Your task to perform on an android device: open app "Pluto TV - Live TV and Movies" Image 0: 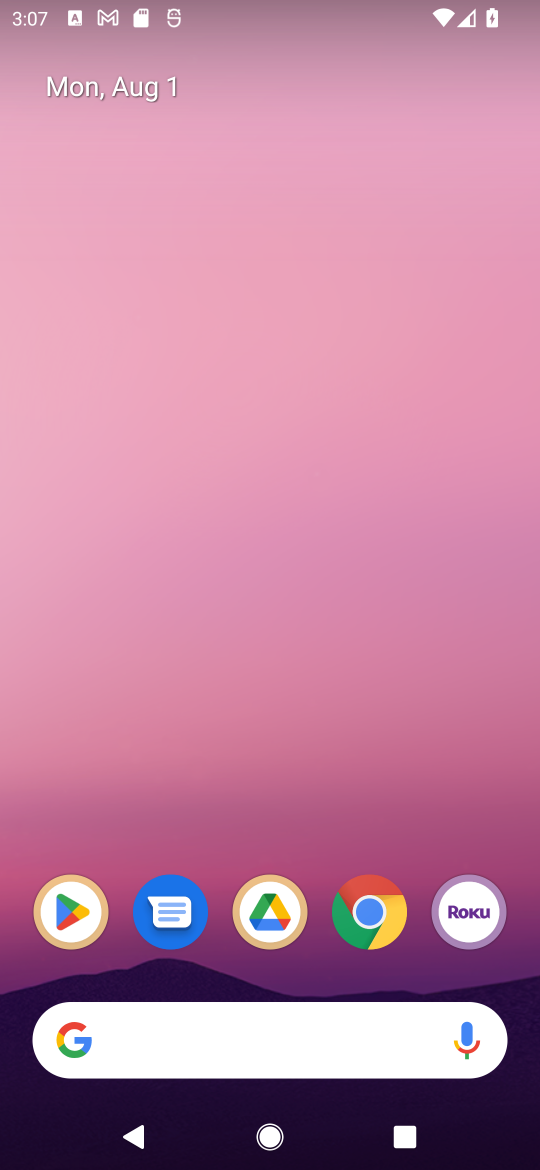
Step 0: click (82, 910)
Your task to perform on an android device: open app "Pluto TV - Live TV and Movies" Image 1: 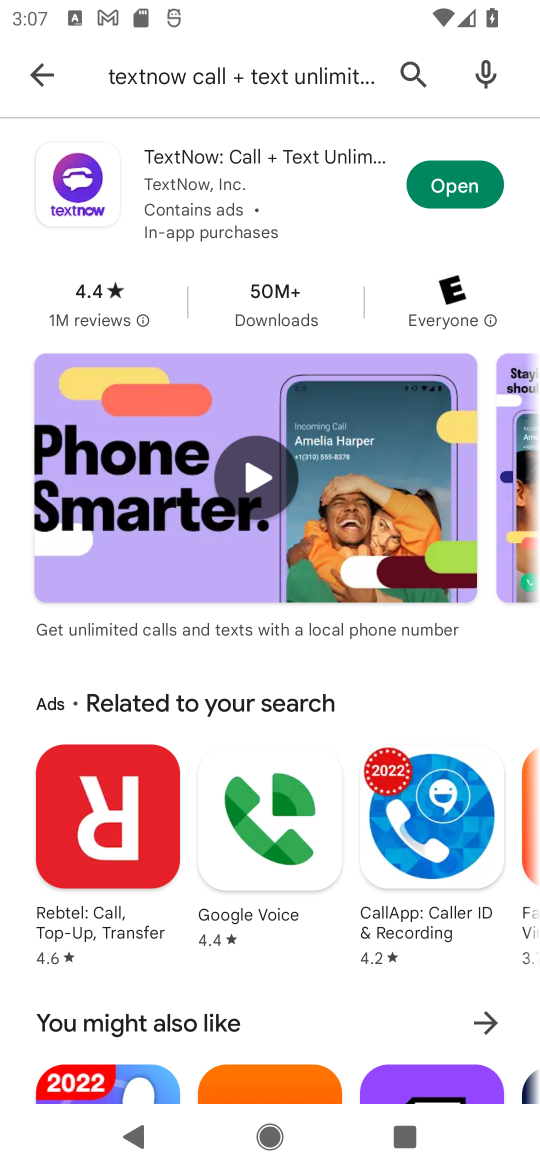
Step 1: click (414, 70)
Your task to perform on an android device: open app "Pluto TV - Live TV and Movies" Image 2: 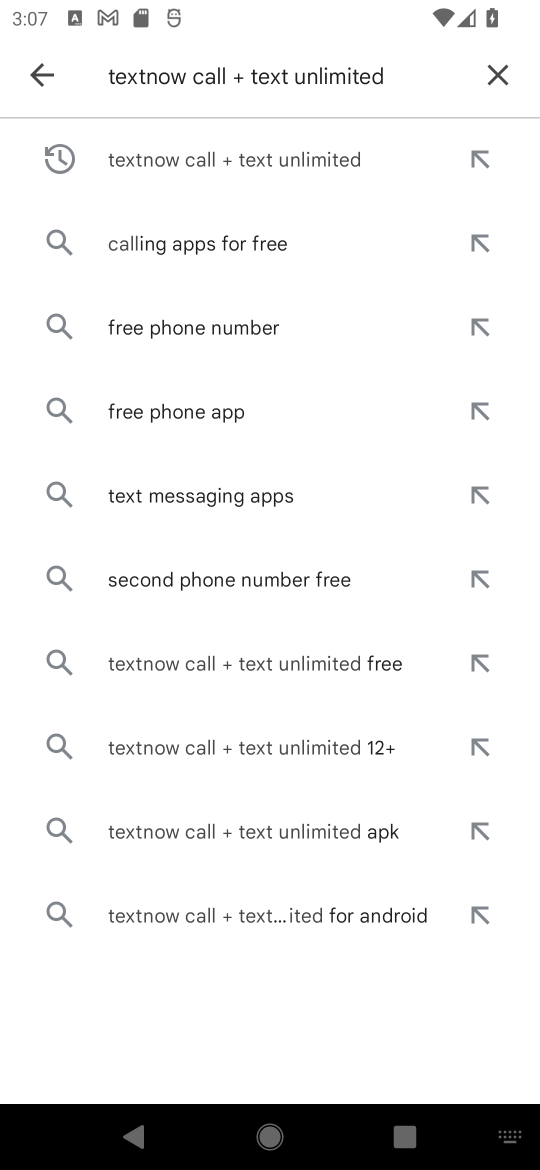
Step 2: click (512, 90)
Your task to perform on an android device: open app "Pluto TV - Live TV and Movies" Image 3: 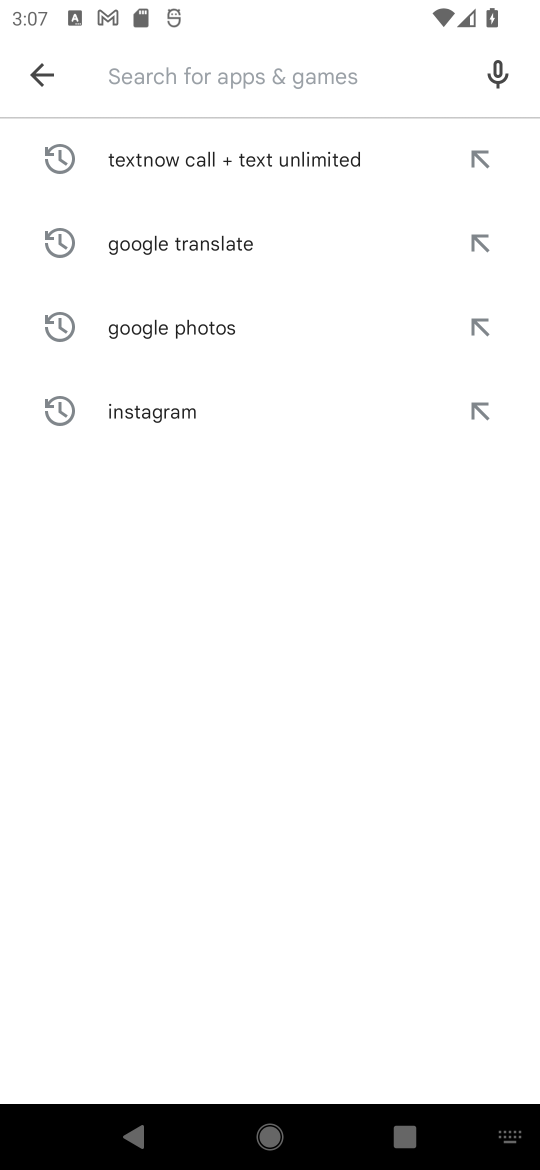
Step 3: click (326, 88)
Your task to perform on an android device: open app "Pluto TV - Live TV and Movies" Image 4: 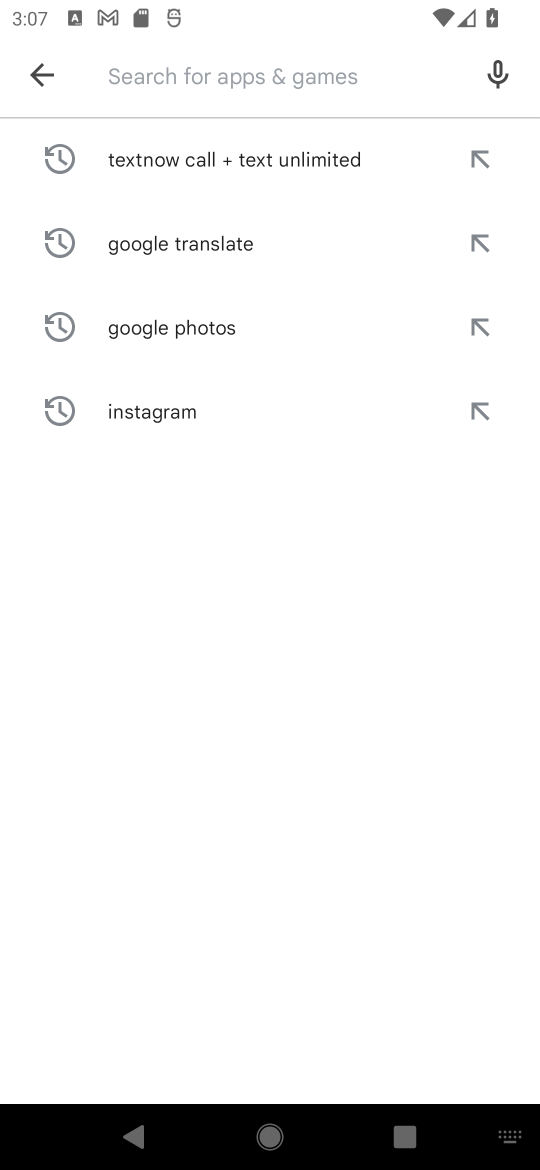
Step 4: type "Pluto TV - Live TV and Movies"
Your task to perform on an android device: open app "Pluto TV - Live TV and Movies" Image 5: 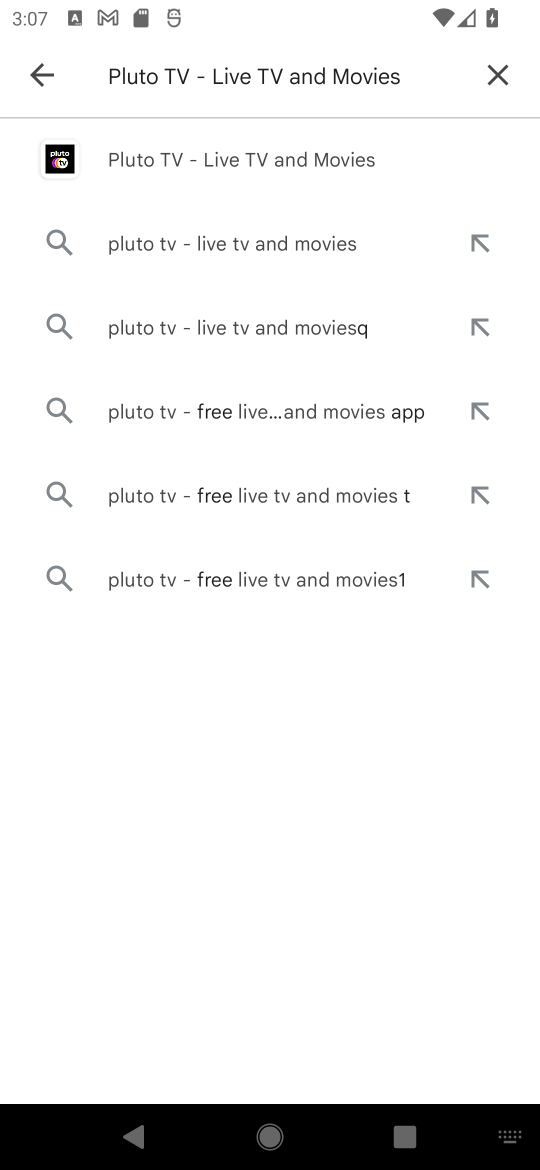
Step 5: click (235, 160)
Your task to perform on an android device: open app "Pluto TV - Live TV and Movies" Image 6: 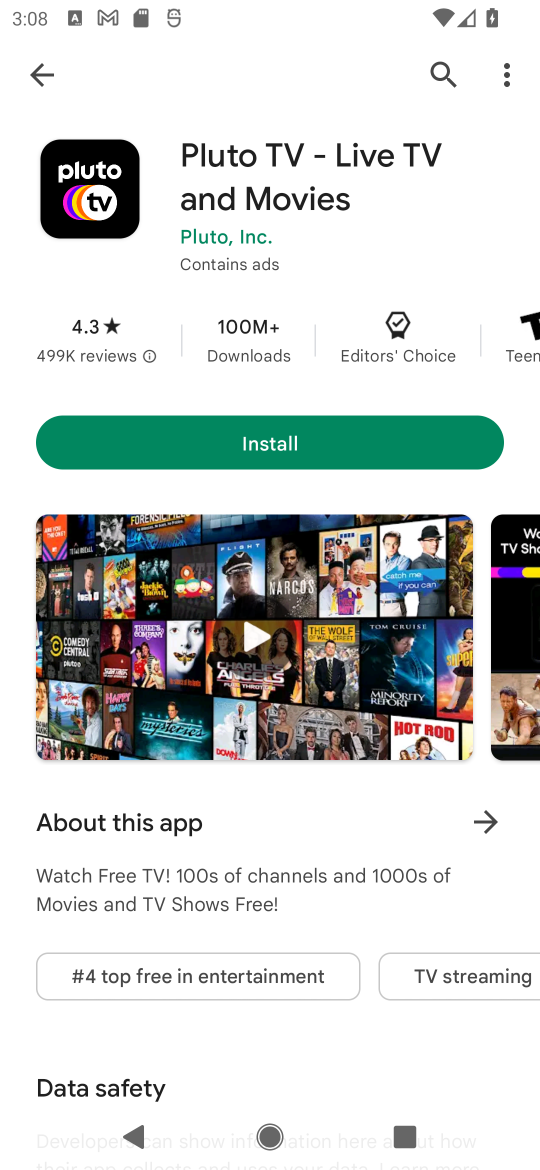
Step 6: task complete